Your task to perform on an android device: turn on the 24-hour format for clock Image 0: 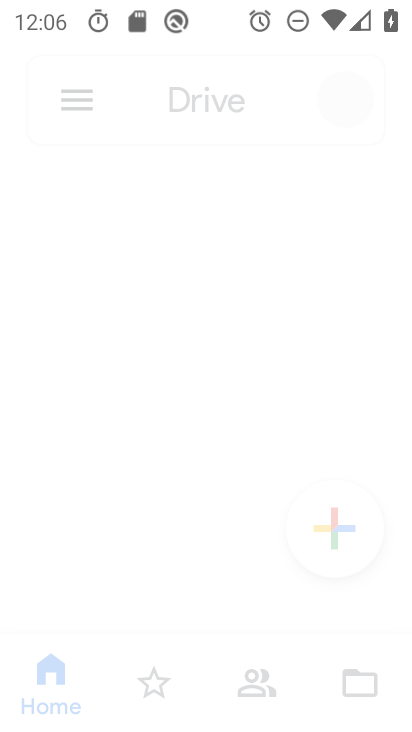
Step 0: drag from (292, 579) to (275, 0)
Your task to perform on an android device: turn on the 24-hour format for clock Image 1: 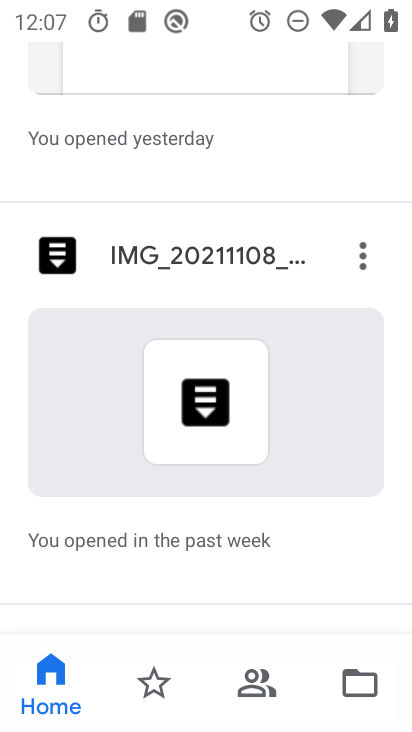
Step 1: press home button
Your task to perform on an android device: turn on the 24-hour format for clock Image 2: 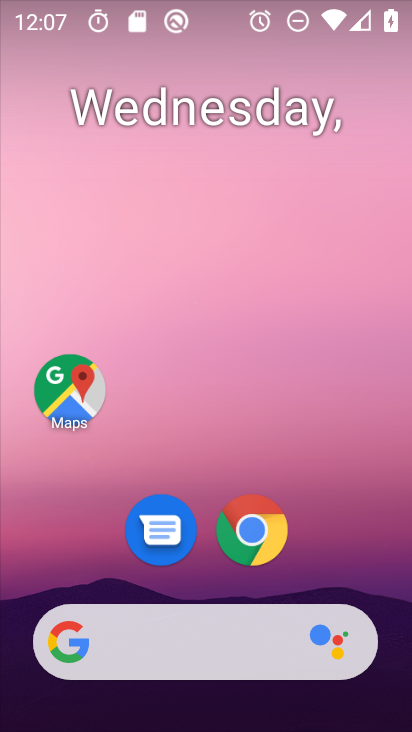
Step 2: drag from (228, 639) to (258, 95)
Your task to perform on an android device: turn on the 24-hour format for clock Image 3: 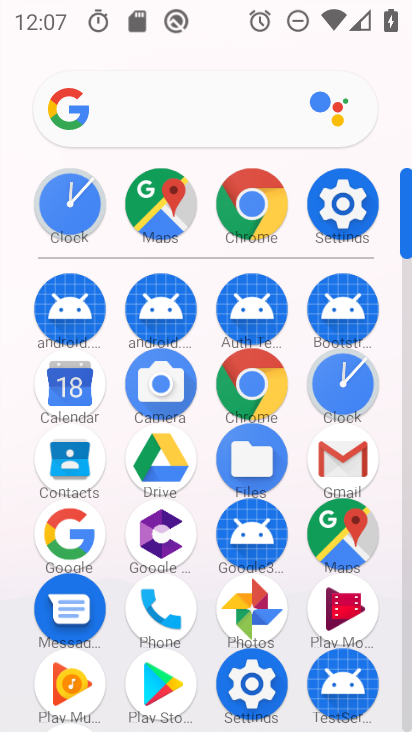
Step 3: click (369, 393)
Your task to perform on an android device: turn on the 24-hour format for clock Image 4: 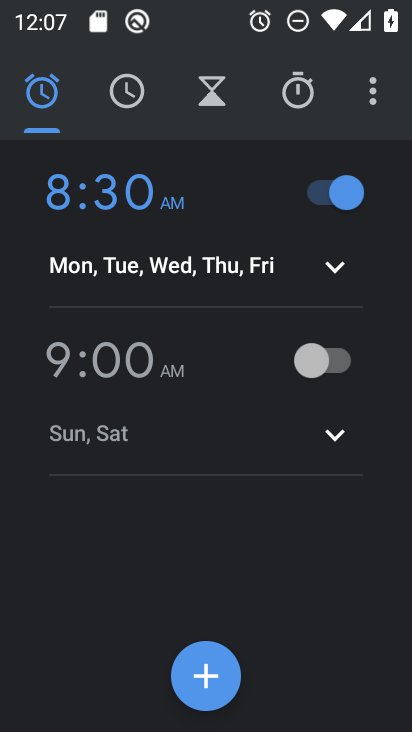
Step 4: click (371, 83)
Your task to perform on an android device: turn on the 24-hour format for clock Image 5: 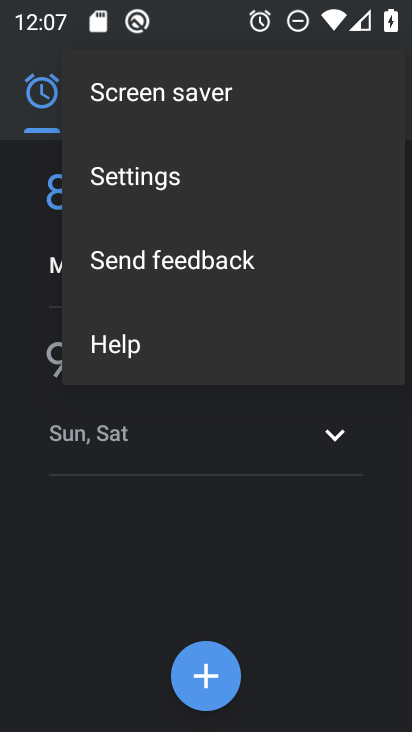
Step 5: click (178, 184)
Your task to perform on an android device: turn on the 24-hour format for clock Image 6: 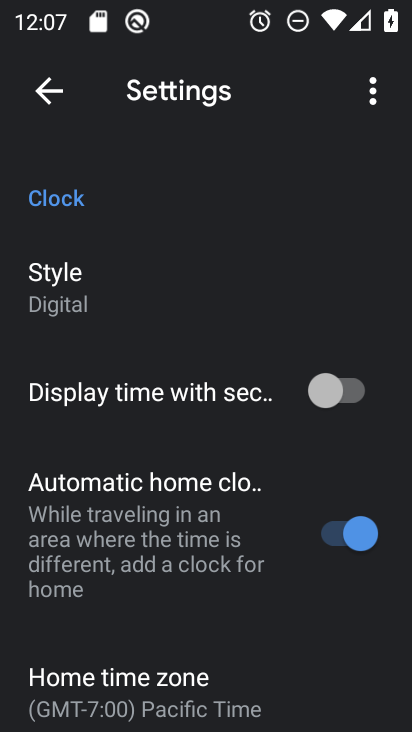
Step 6: drag from (227, 620) to (226, 211)
Your task to perform on an android device: turn on the 24-hour format for clock Image 7: 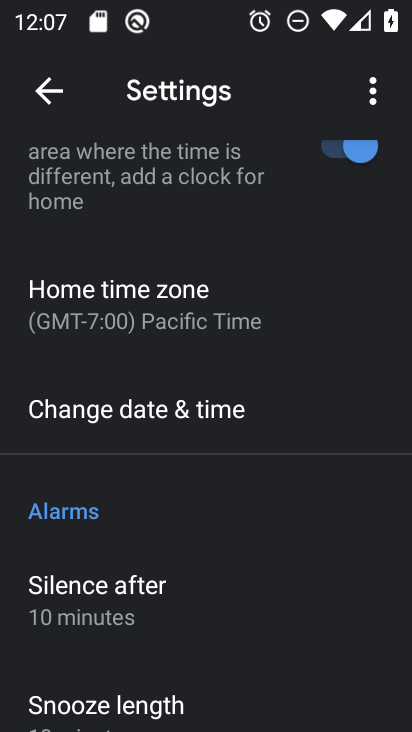
Step 7: click (257, 428)
Your task to perform on an android device: turn on the 24-hour format for clock Image 8: 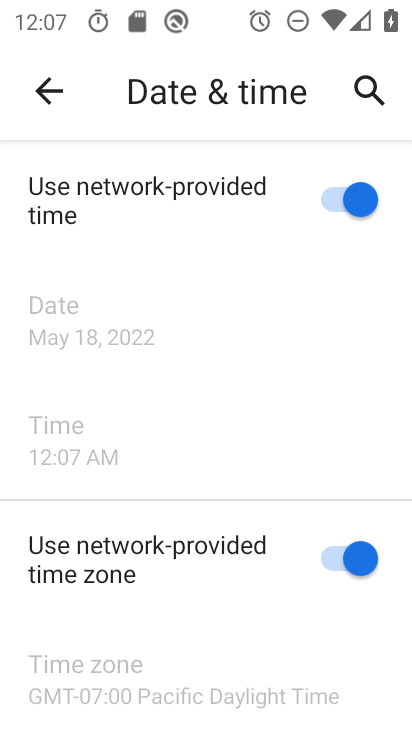
Step 8: drag from (254, 593) to (289, 160)
Your task to perform on an android device: turn on the 24-hour format for clock Image 9: 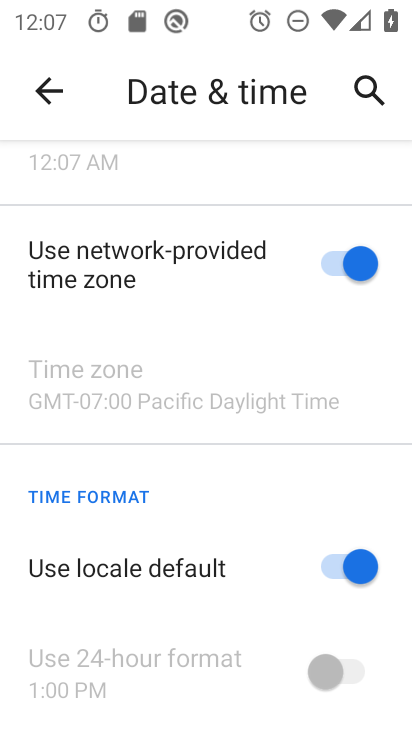
Step 9: click (346, 567)
Your task to perform on an android device: turn on the 24-hour format for clock Image 10: 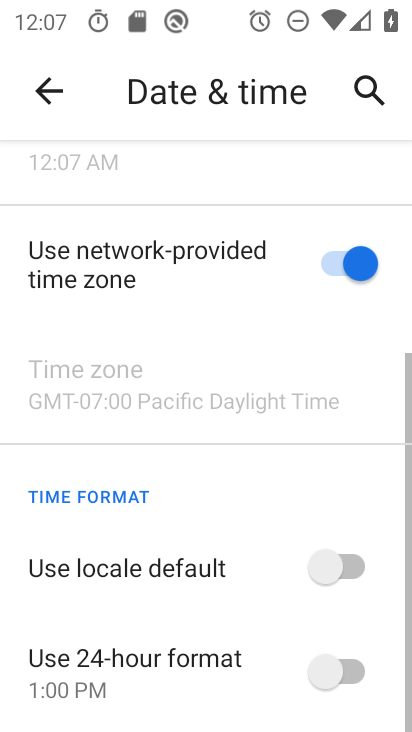
Step 10: click (358, 670)
Your task to perform on an android device: turn on the 24-hour format for clock Image 11: 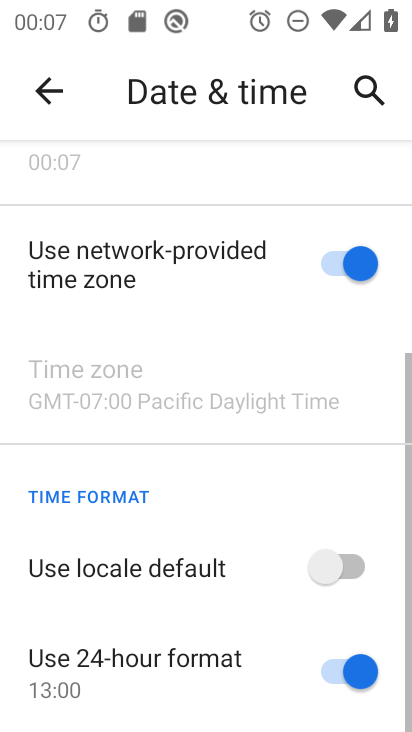
Step 11: task complete